Your task to perform on an android device: Open the map Image 0: 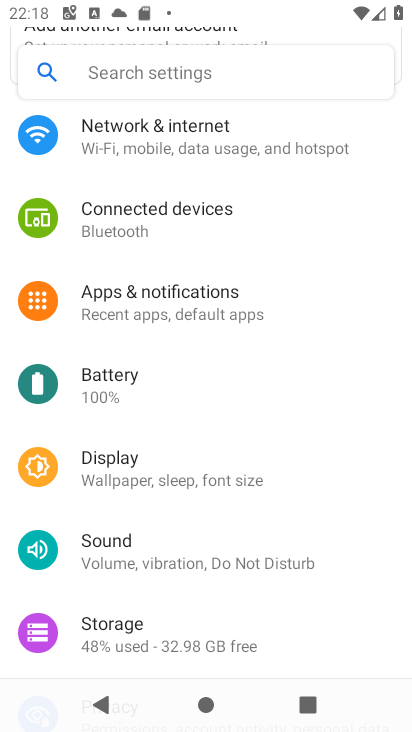
Step 0: press home button
Your task to perform on an android device: Open the map Image 1: 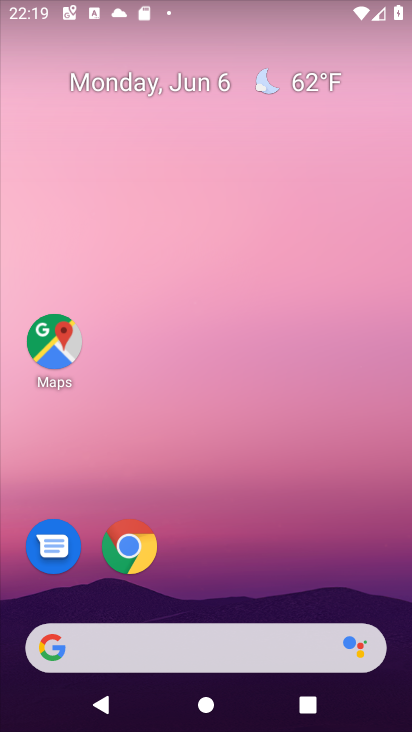
Step 1: click (57, 348)
Your task to perform on an android device: Open the map Image 2: 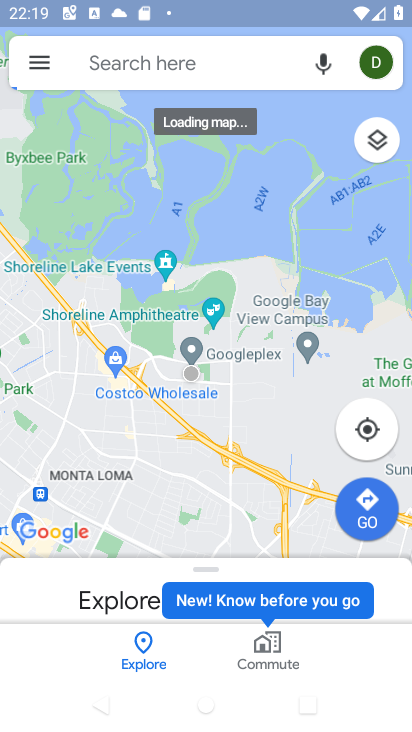
Step 2: task complete